Your task to perform on an android device: set an alarm Image 0: 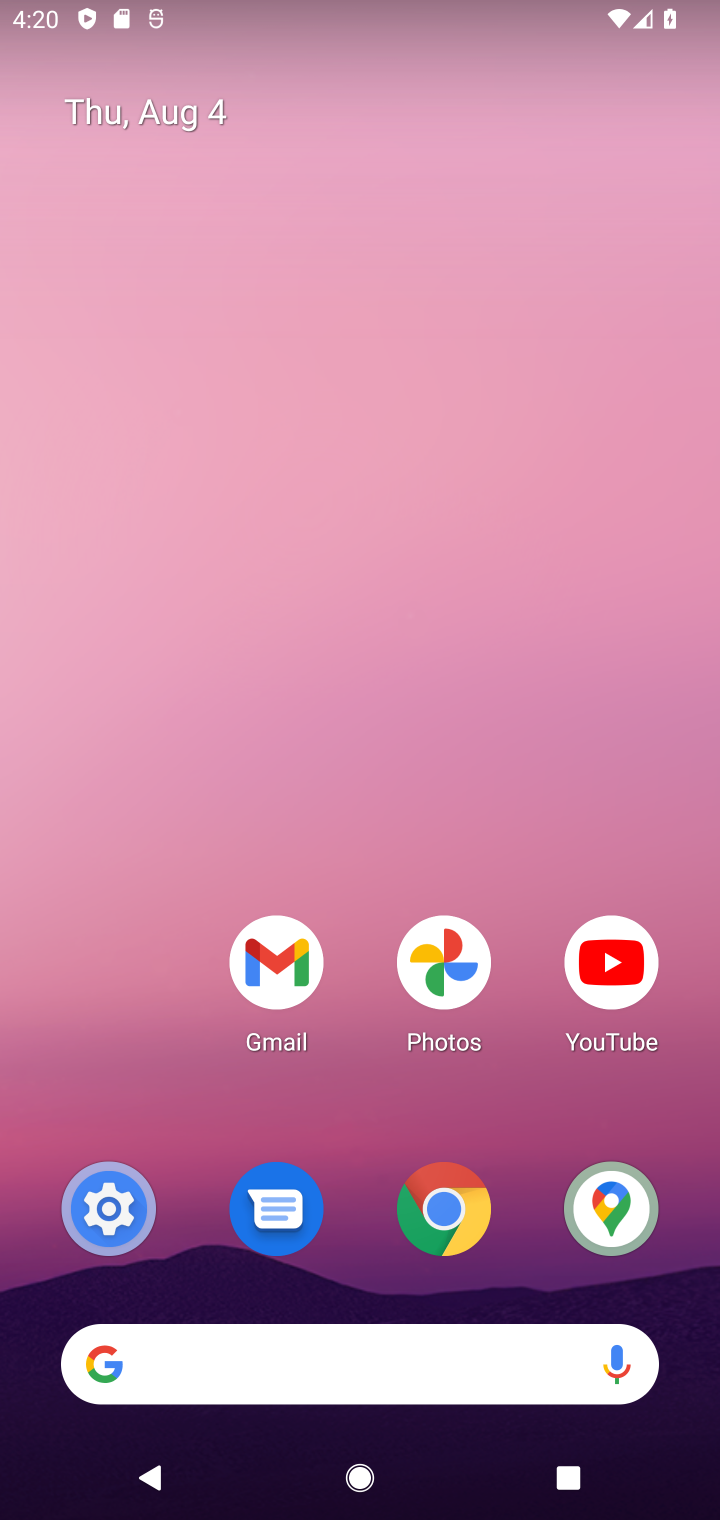
Step 0: drag from (355, 1031) to (355, 382)
Your task to perform on an android device: set an alarm Image 1: 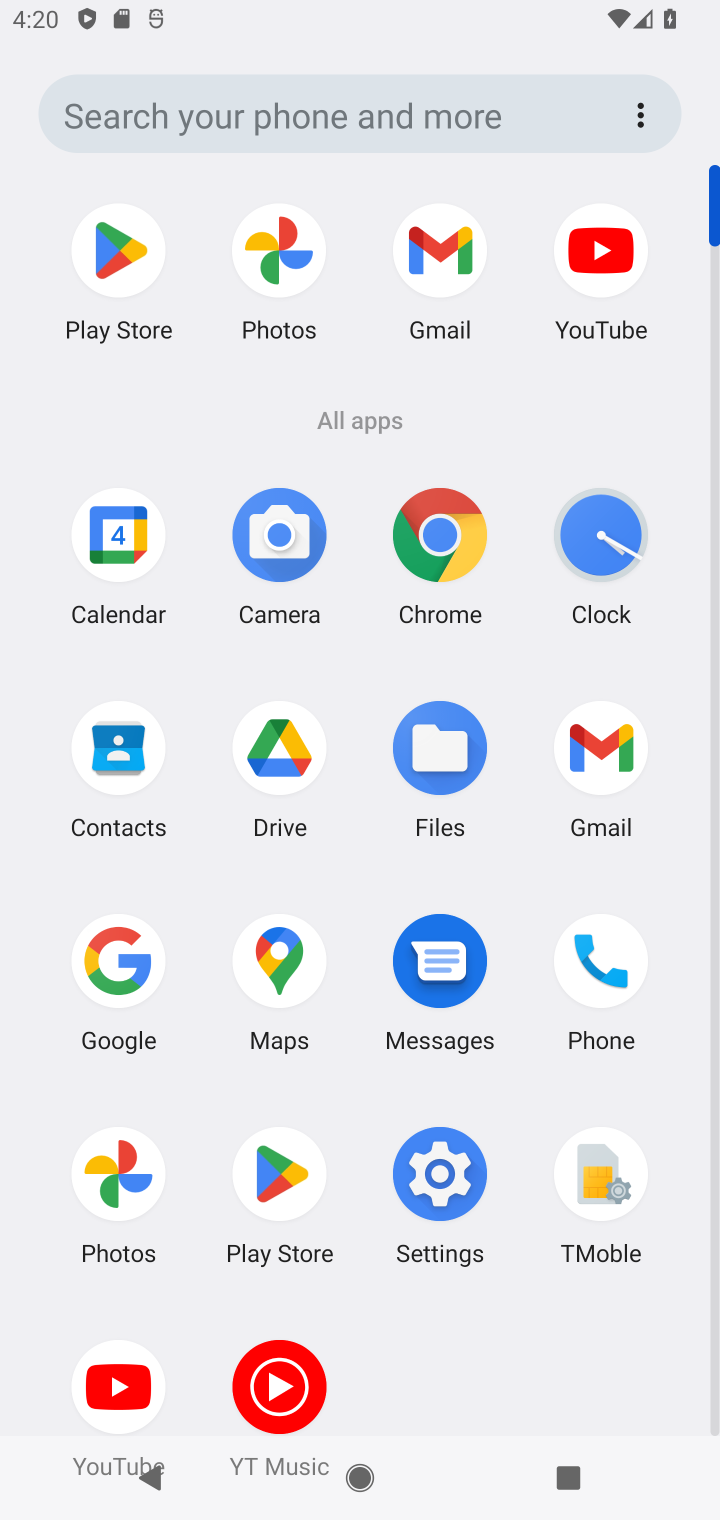
Step 1: click (606, 566)
Your task to perform on an android device: set an alarm Image 2: 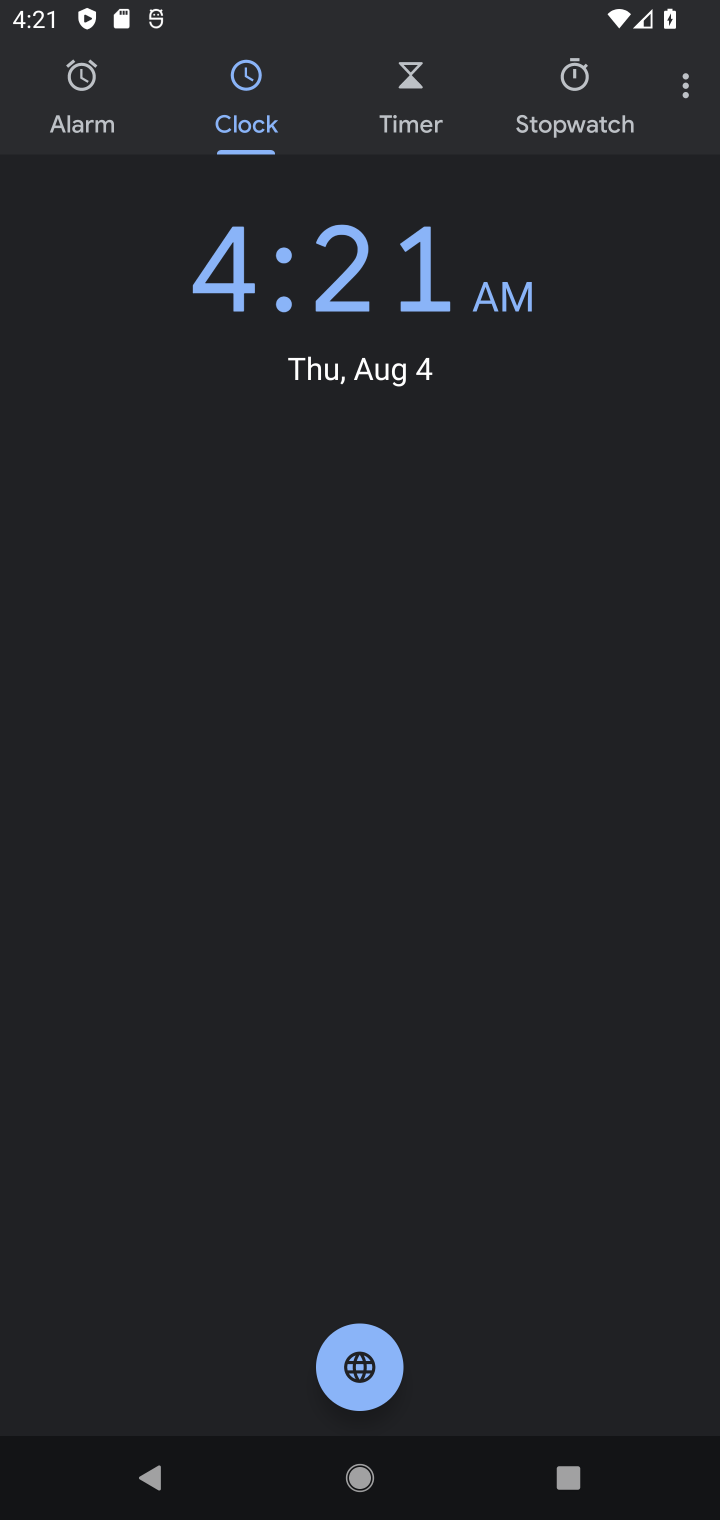
Step 2: click (78, 113)
Your task to perform on an android device: set an alarm Image 3: 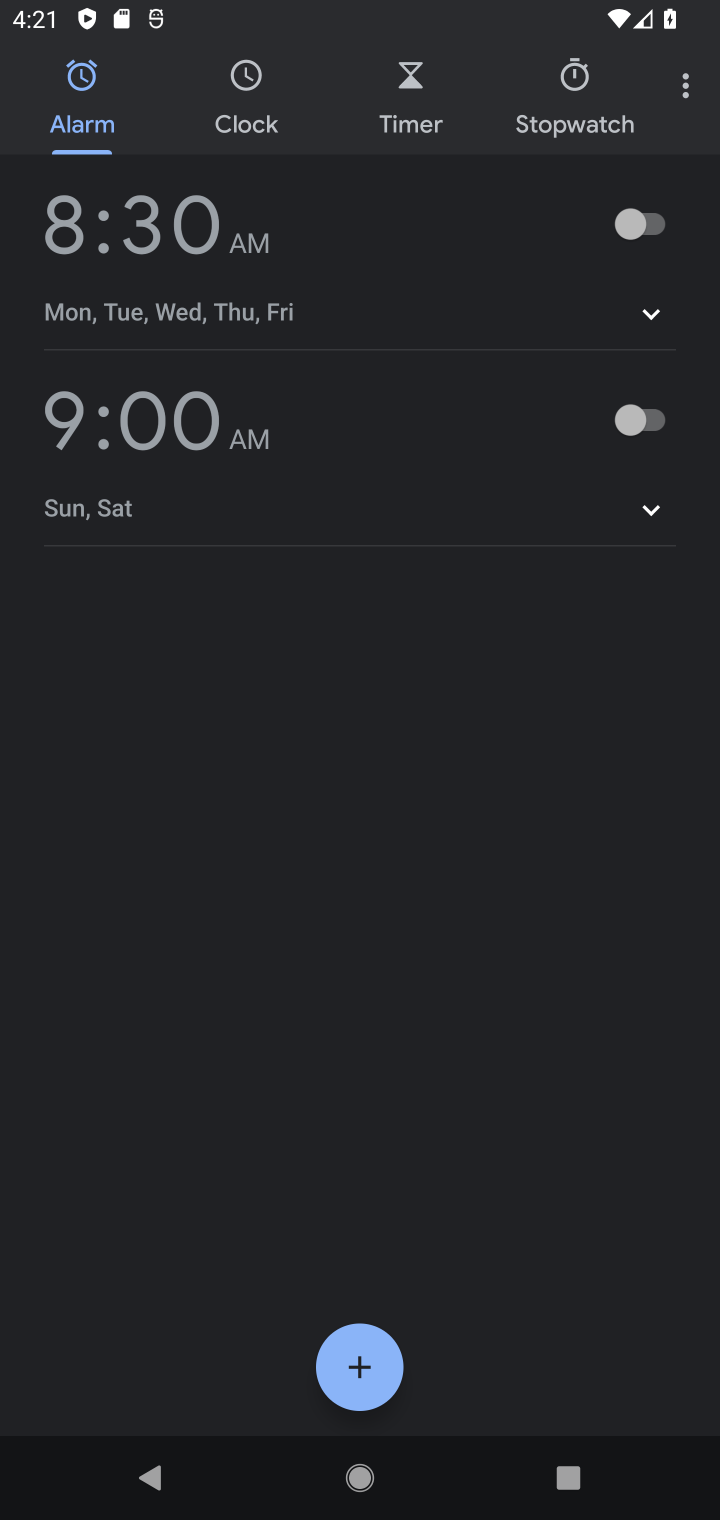
Step 3: click (662, 218)
Your task to perform on an android device: set an alarm Image 4: 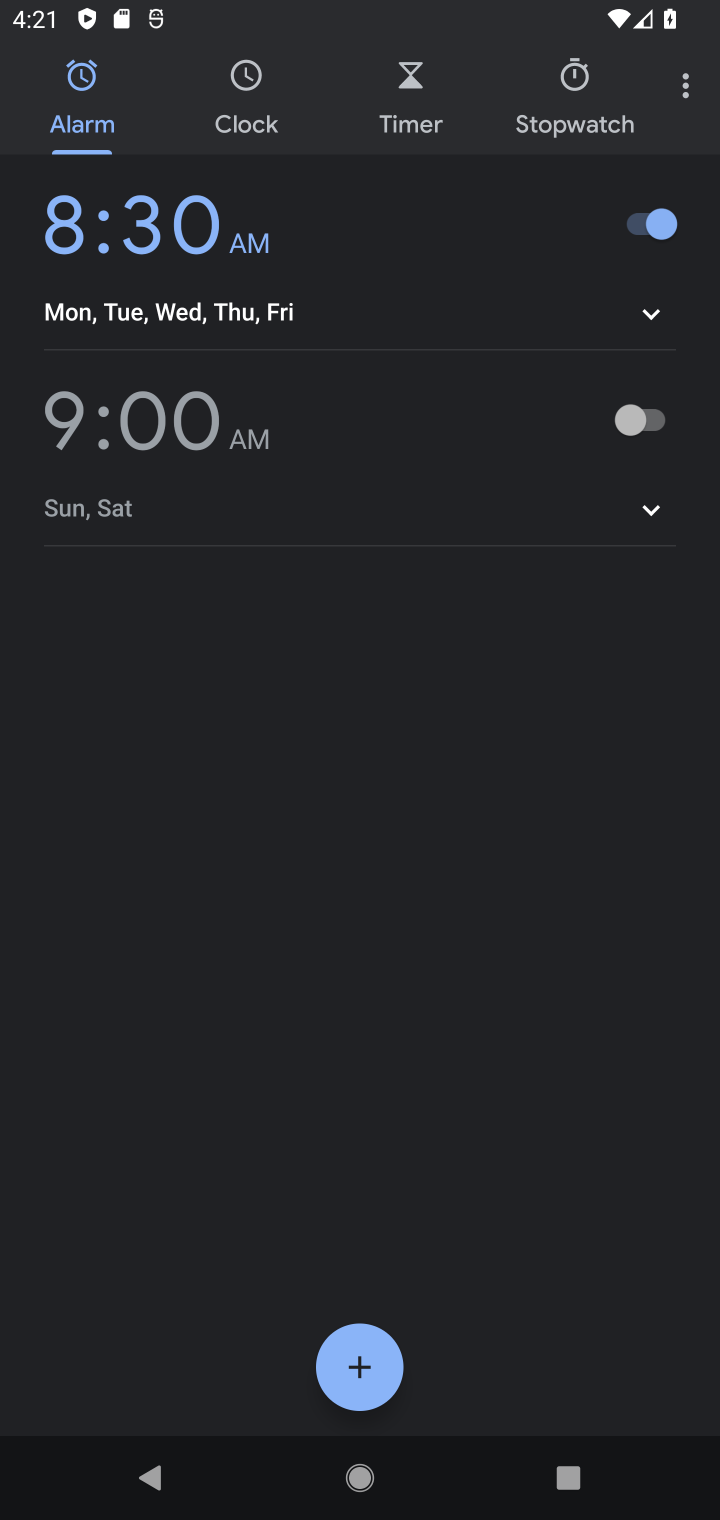
Step 4: task complete